Your task to perform on an android device: See recent photos Image 0: 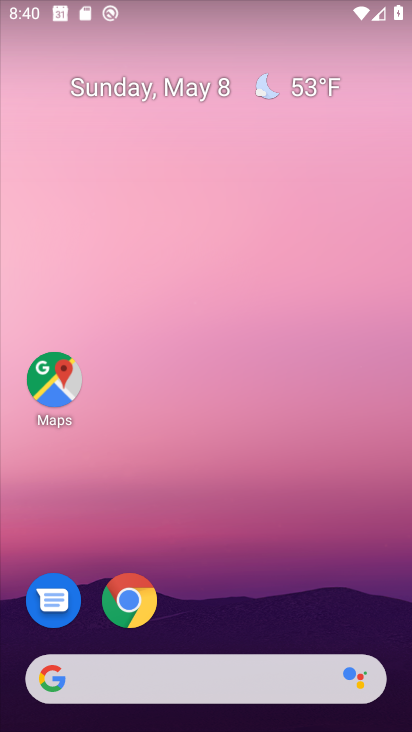
Step 0: drag from (191, 586) to (220, 138)
Your task to perform on an android device: See recent photos Image 1: 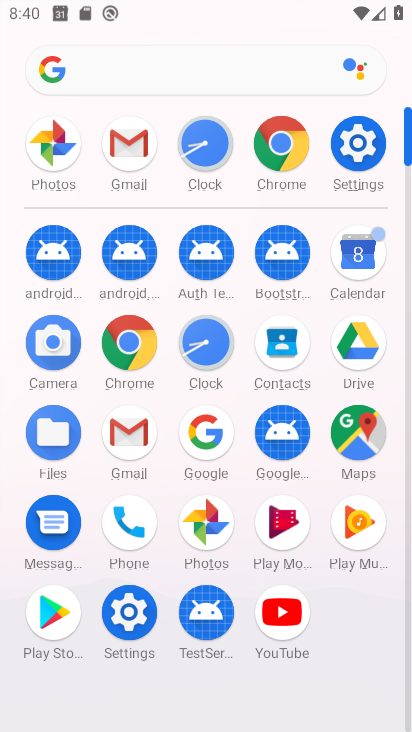
Step 1: click (209, 525)
Your task to perform on an android device: See recent photos Image 2: 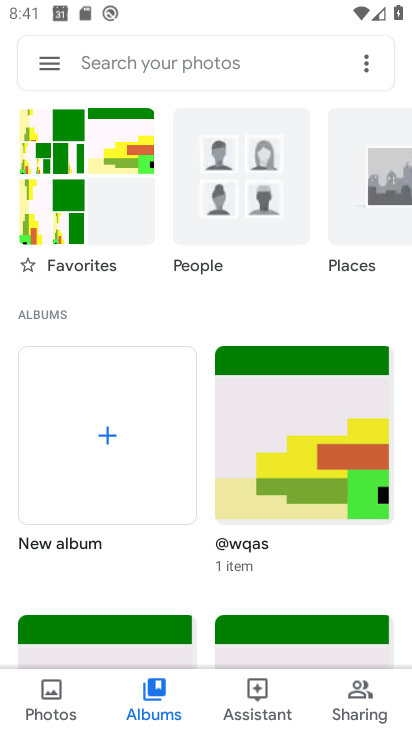
Step 2: click (64, 699)
Your task to perform on an android device: See recent photos Image 3: 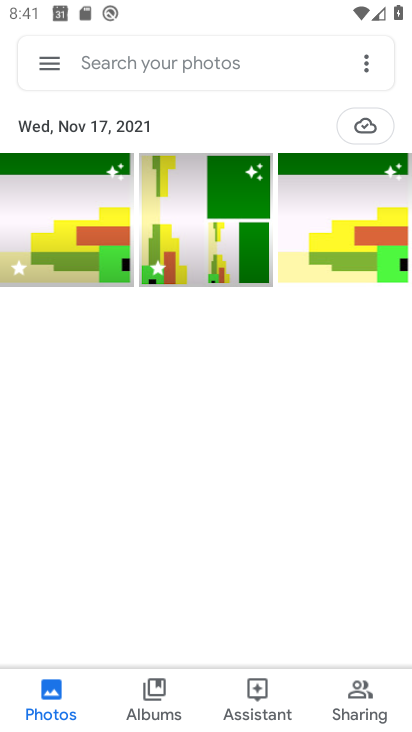
Step 3: task complete